Your task to perform on an android device: open app "Flipkart Online Shopping App" (install if not already installed) and go to login screen Image 0: 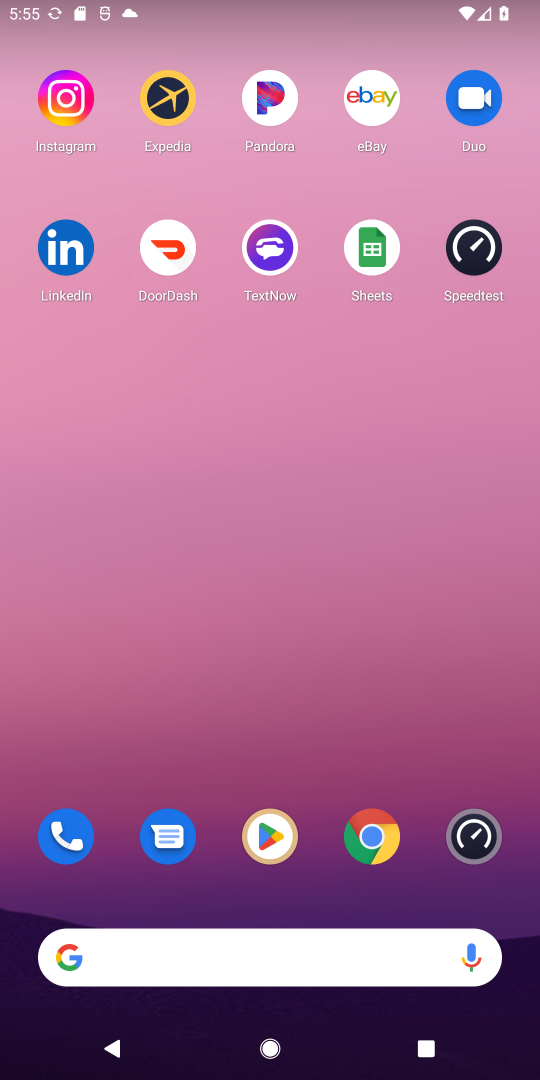
Step 0: click (273, 839)
Your task to perform on an android device: open app "Flipkart Online Shopping App" (install if not already installed) and go to login screen Image 1: 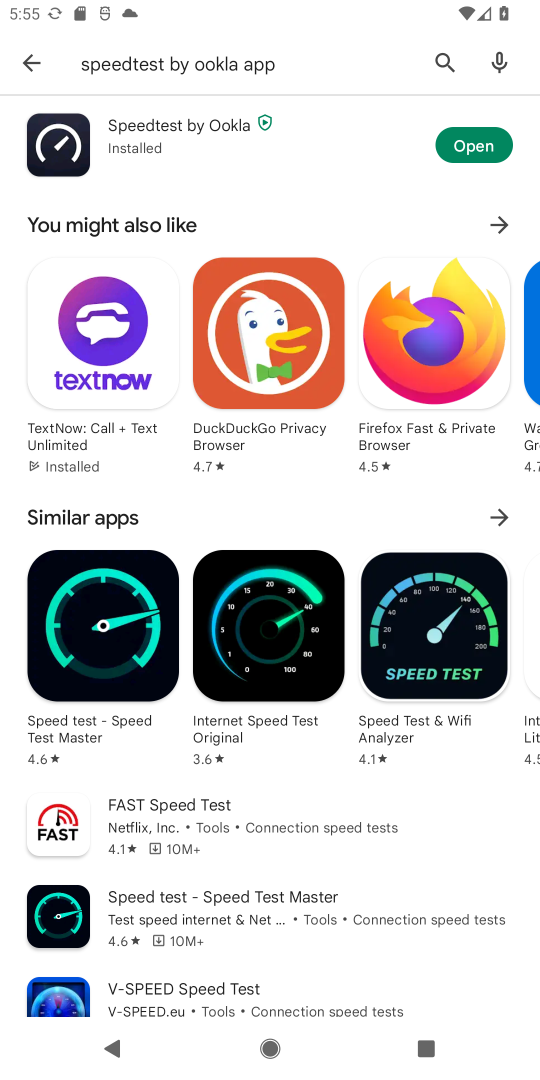
Step 1: click (445, 53)
Your task to perform on an android device: open app "Flipkart Online Shopping App" (install if not already installed) and go to login screen Image 2: 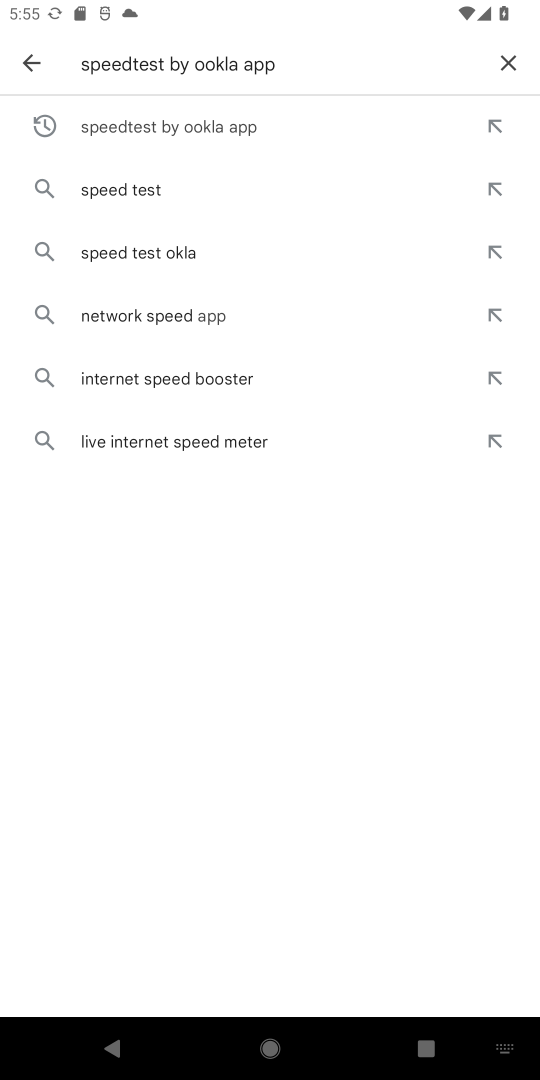
Step 2: click (515, 60)
Your task to perform on an android device: open app "Flipkart Online Shopping App" (install if not already installed) and go to login screen Image 3: 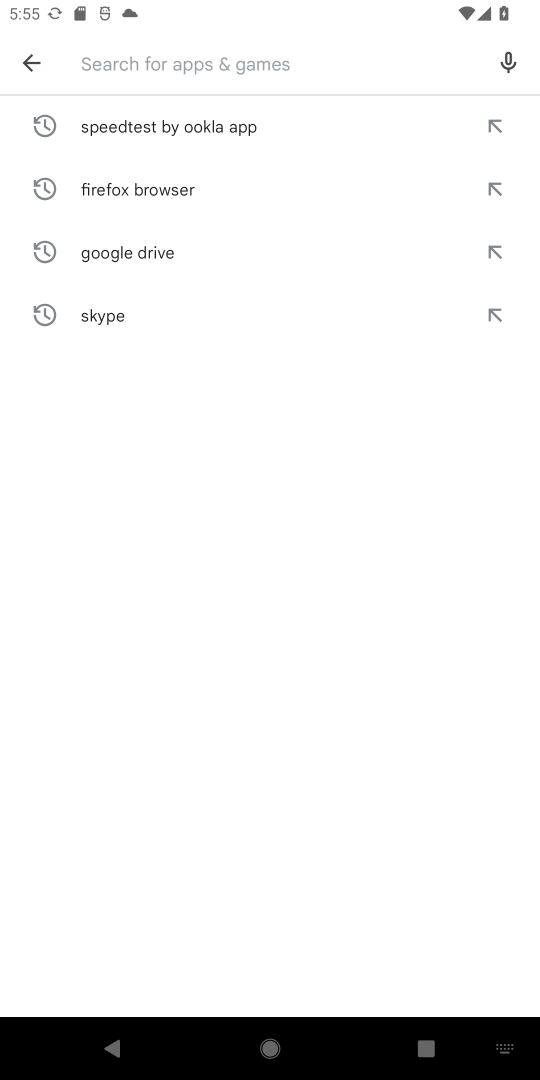
Step 3: type "Flipkart Online Shopping App"
Your task to perform on an android device: open app "Flipkart Online Shopping App" (install if not already installed) and go to login screen Image 4: 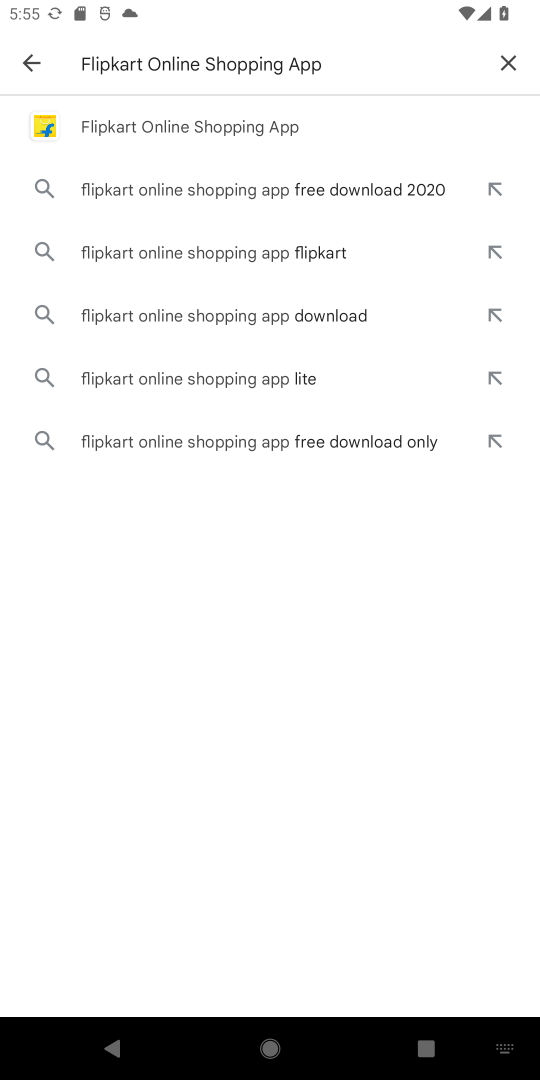
Step 4: click (161, 115)
Your task to perform on an android device: open app "Flipkart Online Shopping App" (install if not already installed) and go to login screen Image 5: 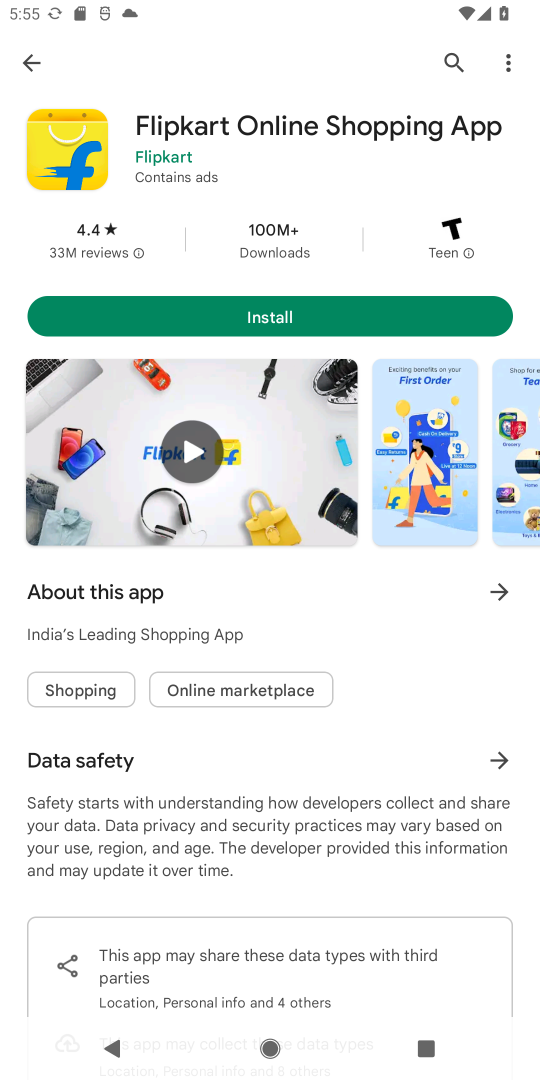
Step 5: click (263, 309)
Your task to perform on an android device: open app "Flipkart Online Shopping App" (install if not already installed) and go to login screen Image 6: 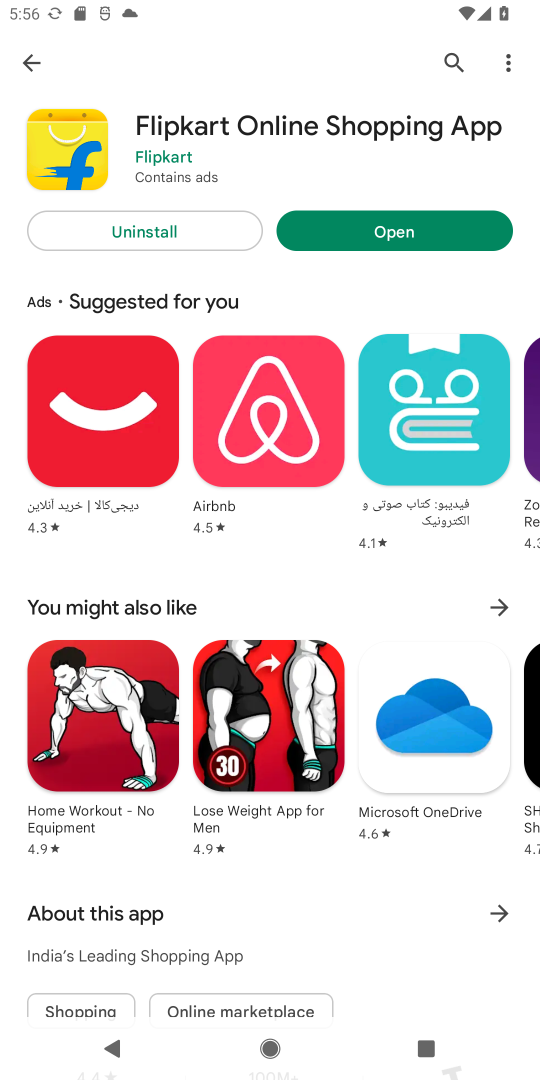
Step 6: click (396, 228)
Your task to perform on an android device: open app "Flipkart Online Shopping App" (install if not already installed) and go to login screen Image 7: 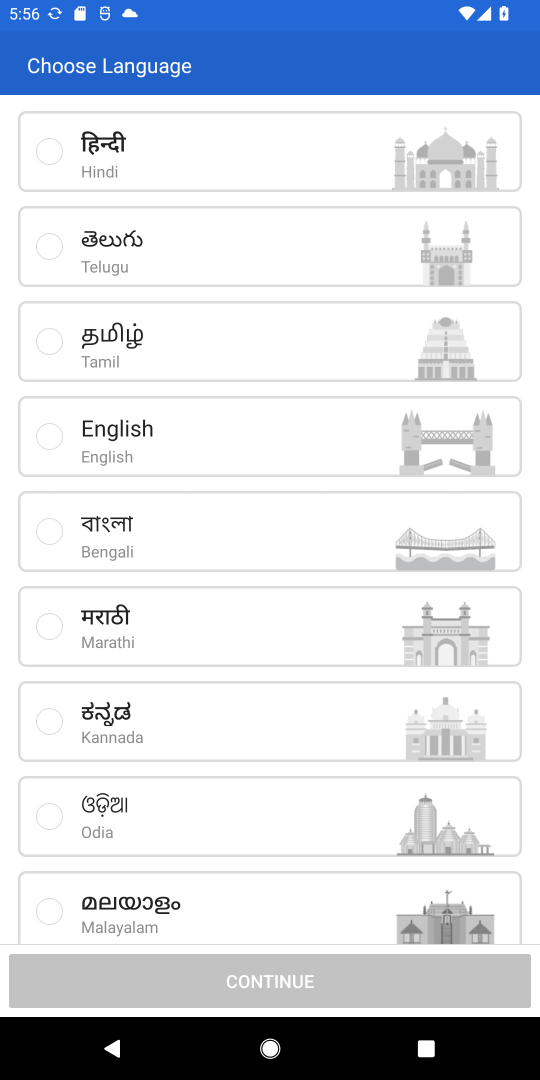
Step 7: click (217, 426)
Your task to perform on an android device: open app "Flipkart Online Shopping App" (install if not already installed) and go to login screen Image 8: 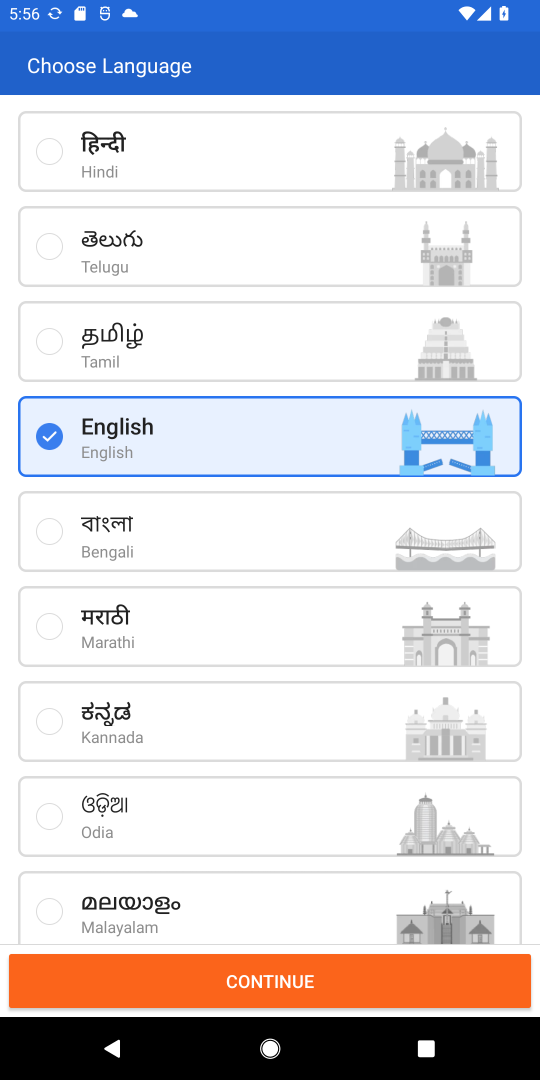
Step 8: click (261, 978)
Your task to perform on an android device: open app "Flipkart Online Shopping App" (install if not already installed) and go to login screen Image 9: 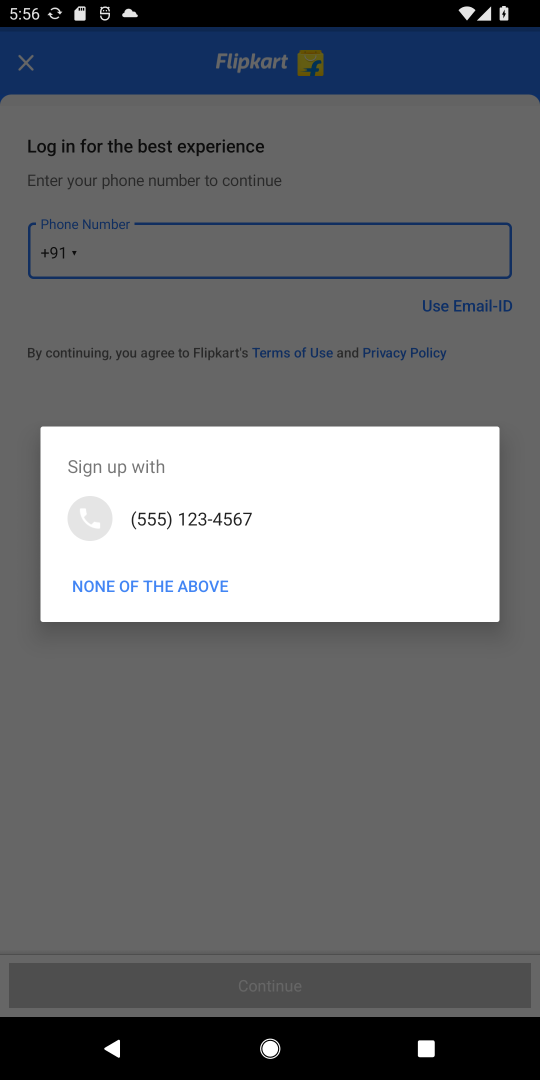
Step 9: task complete